Your task to perform on an android device: clear all cookies in the chrome app Image 0: 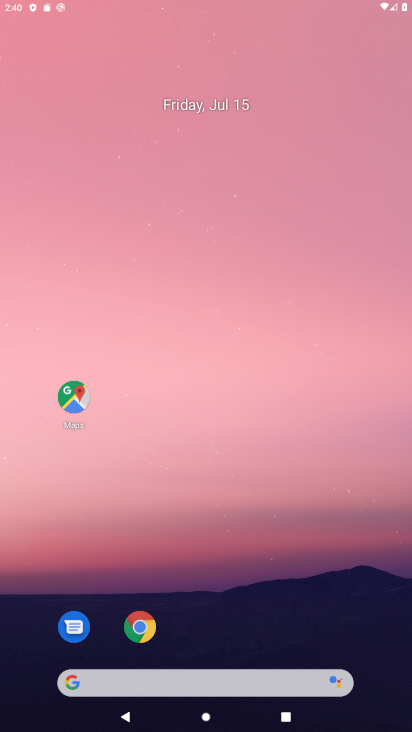
Step 0: click (136, 134)
Your task to perform on an android device: clear all cookies in the chrome app Image 1: 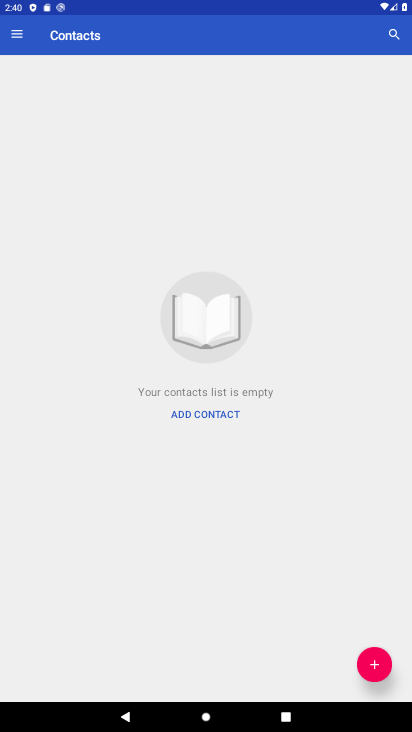
Step 1: press home button
Your task to perform on an android device: clear all cookies in the chrome app Image 2: 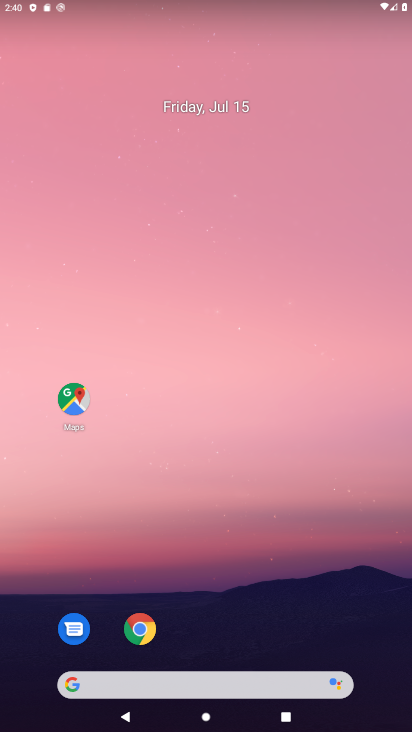
Step 2: drag from (217, 435) to (192, 93)
Your task to perform on an android device: clear all cookies in the chrome app Image 3: 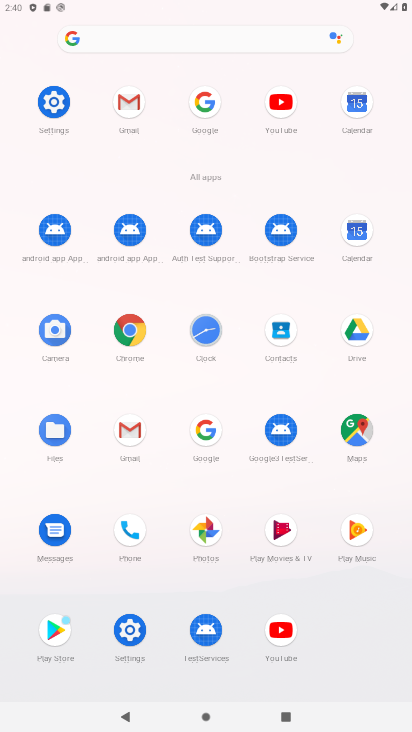
Step 3: click (133, 331)
Your task to perform on an android device: clear all cookies in the chrome app Image 4: 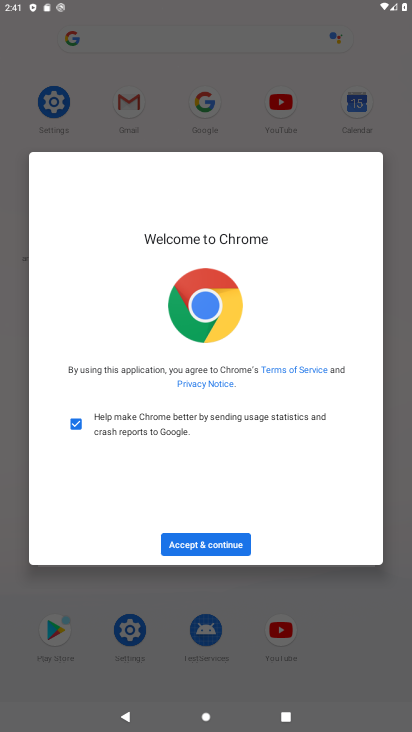
Step 4: click (200, 545)
Your task to perform on an android device: clear all cookies in the chrome app Image 5: 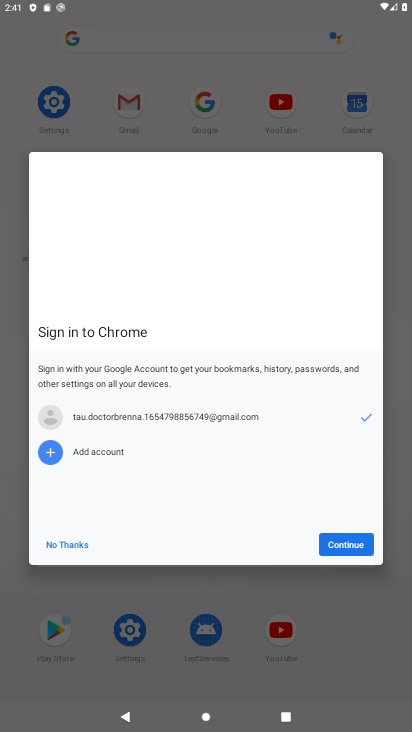
Step 5: click (354, 544)
Your task to perform on an android device: clear all cookies in the chrome app Image 6: 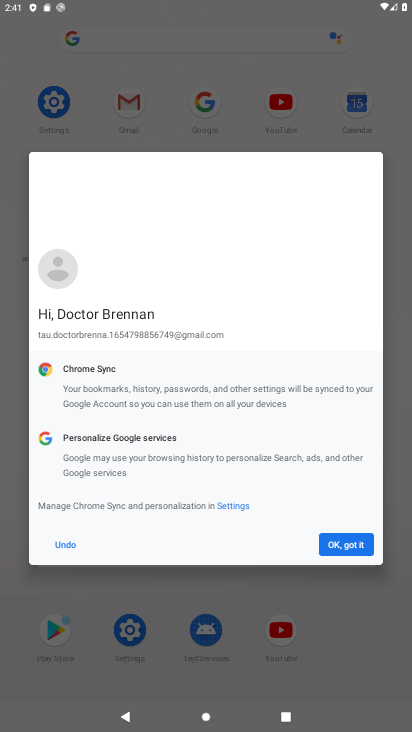
Step 6: click (358, 542)
Your task to perform on an android device: clear all cookies in the chrome app Image 7: 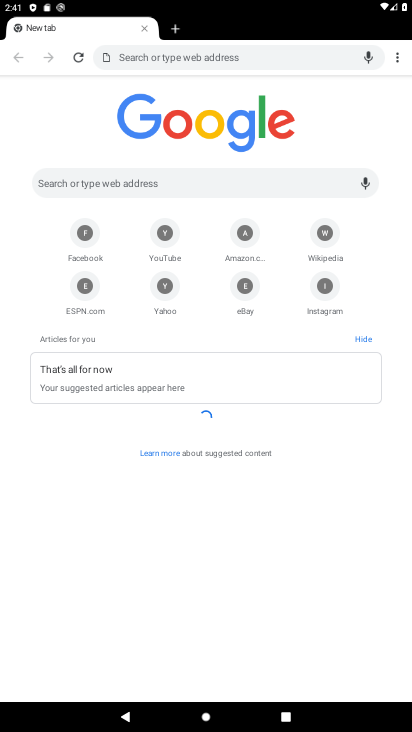
Step 7: click (393, 52)
Your task to perform on an android device: clear all cookies in the chrome app Image 8: 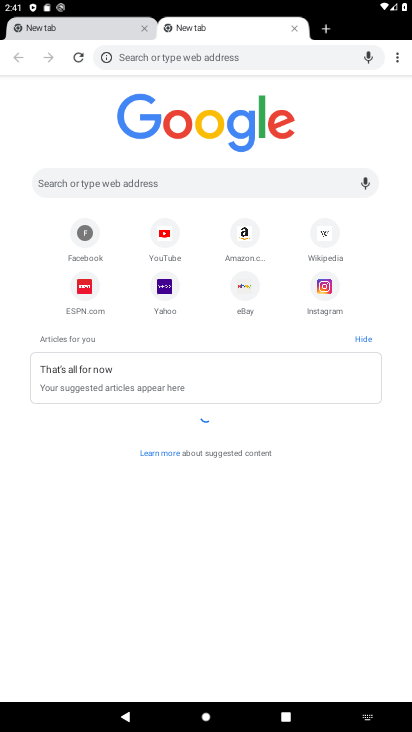
Step 8: drag from (392, 55) to (274, 259)
Your task to perform on an android device: clear all cookies in the chrome app Image 9: 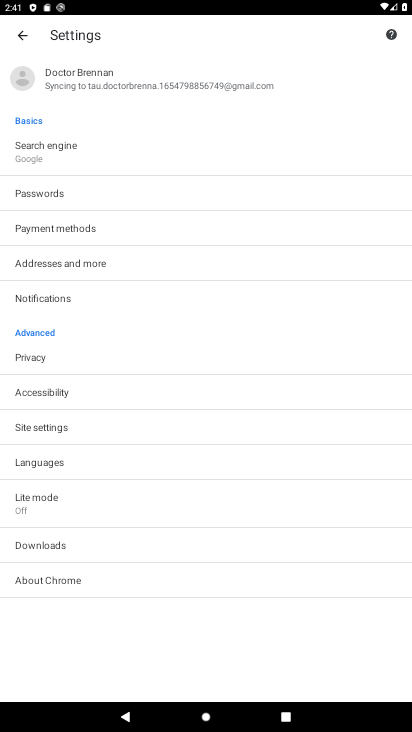
Step 9: click (32, 360)
Your task to perform on an android device: clear all cookies in the chrome app Image 10: 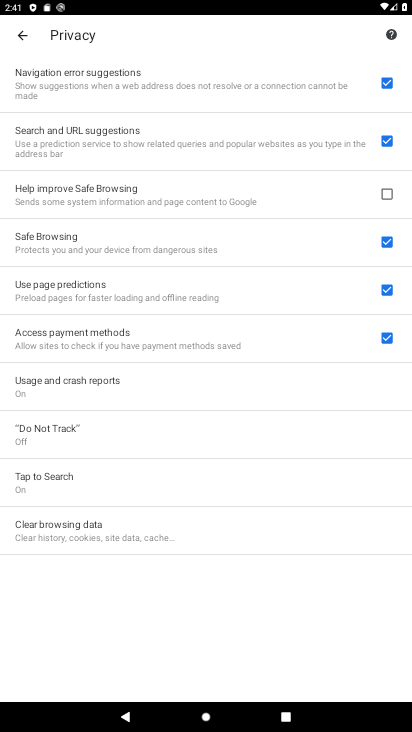
Step 10: click (96, 523)
Your task to perform on an android device: clear all cookies in the chrome app Image 11: 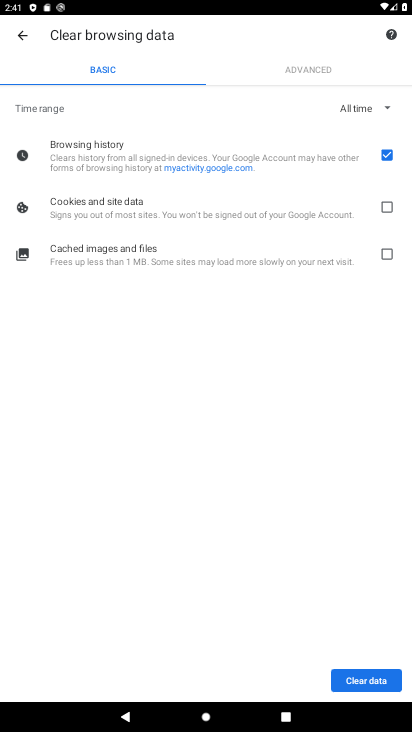
Step 11: click (387, 203)
Your task to perform on an android device: clear all cookies in the chrome app Image 12: 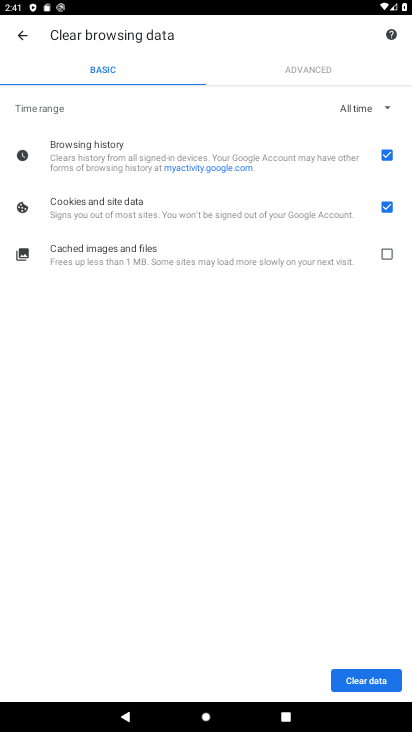
Step 12: click (384, 250)
Your task to perform on an android device: clear all cookies in the chrome app Image 13: 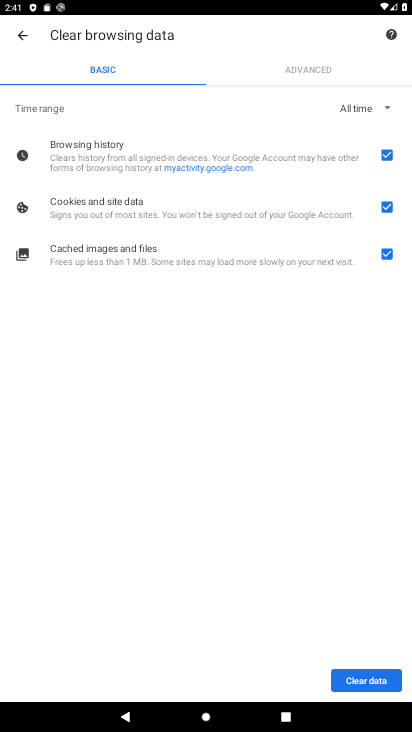
Step 13: click (371, 669)
Your task to perform on an android device: clear all cookies in the chrome app Image 14: 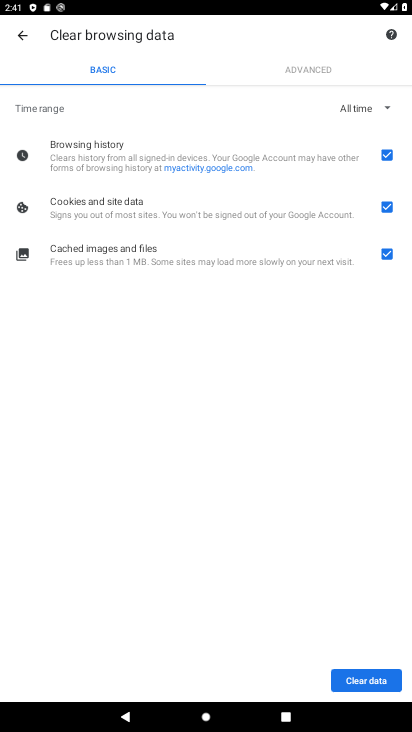
Step 14: click (349, 672)
Your task to perform on an android device: clear all cookies in the chrome app Image 15: 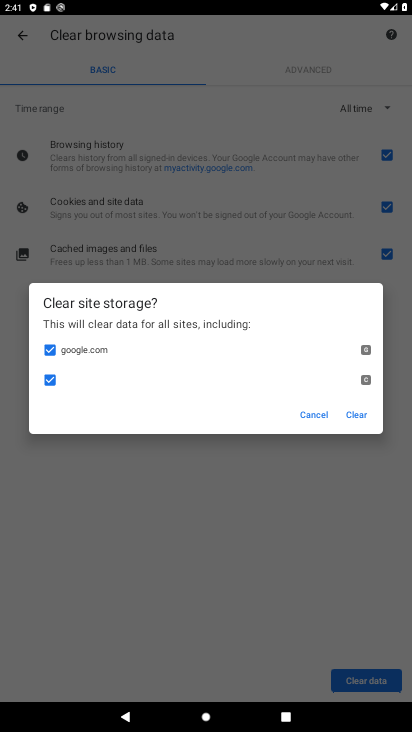
Step 15: click (363, 414)
Your task to perform on an android device: clear all cookies in the chrome app Image 16: 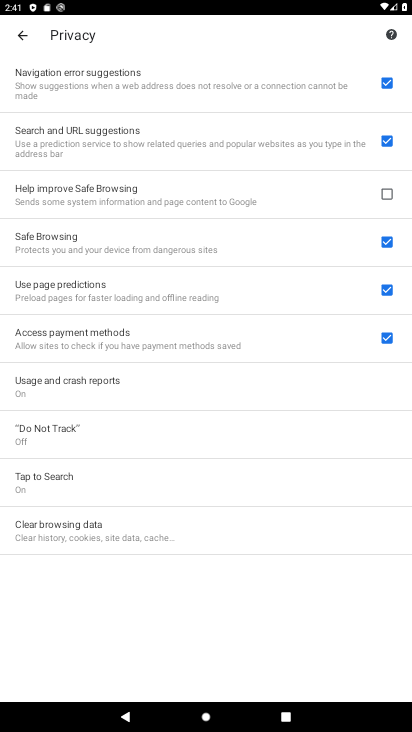
Step 16: task complete